Your task to perform on an android device: change notifications settings Image 0: 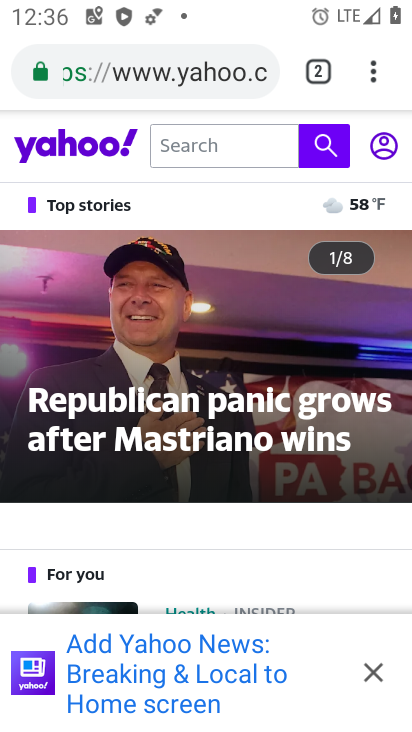
Step 0: press home button
Your task to perform on an android device: change notifications settings Image 1: 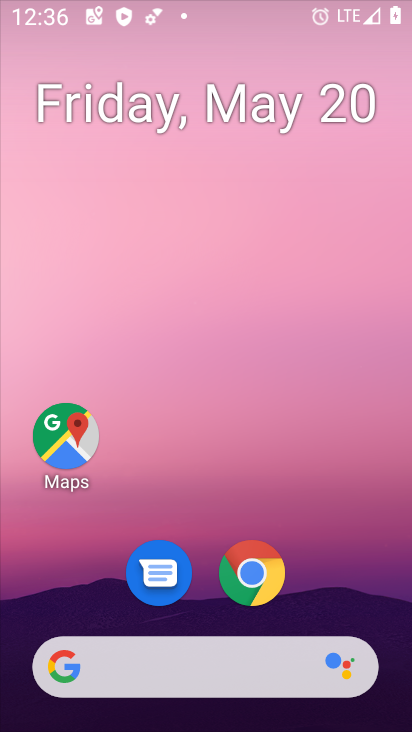
Step 1: drag from (309, 573) to (324, 99)
Your task to perform on an android device: change notifications settings Image 2: 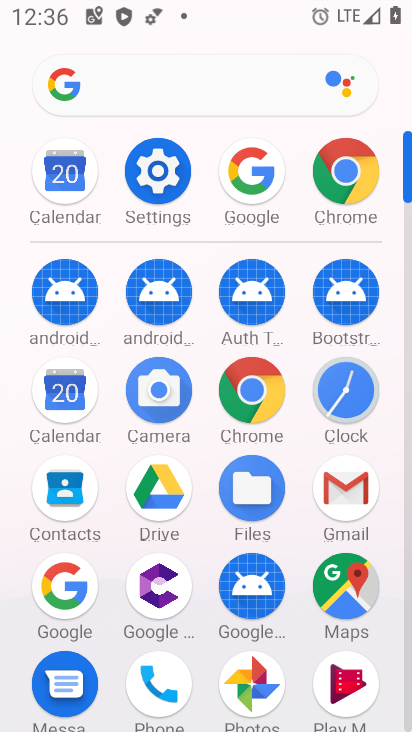
Step 2: click (157, 165)
Your task to perform on an android device: change notifications settings Image 3: 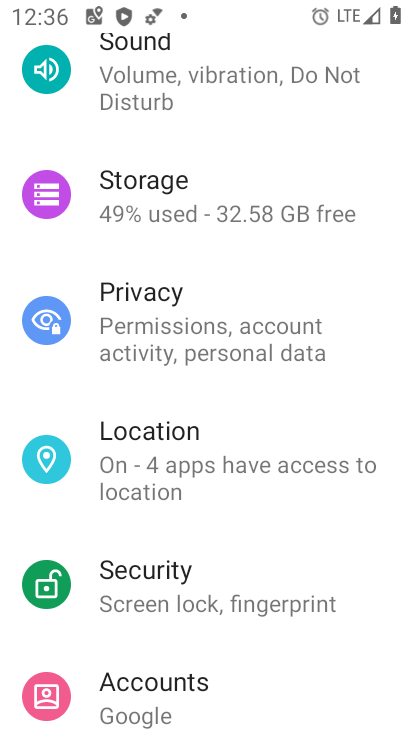
Step 3: drag from (242, 150) to (334, 632)
Your task to perform on an android device: change notifications settings Image 4: 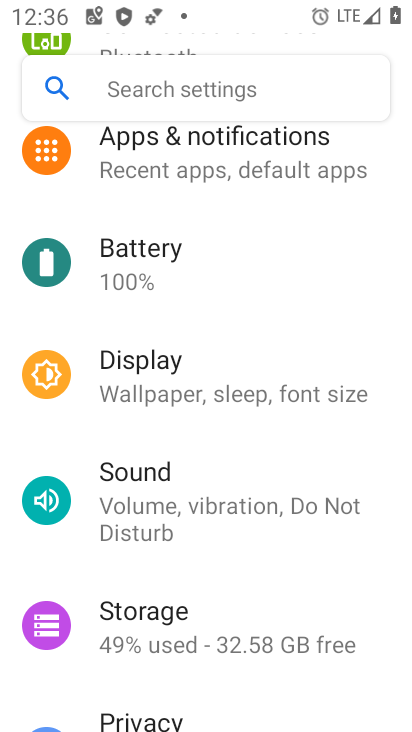
Step 4: drag from (223, 206) to (238, 399)
Your task to perform on an android device: change notifications settings Image 5: 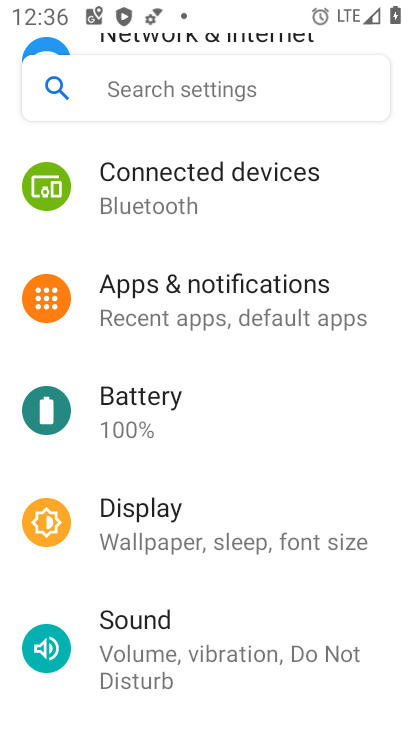
Step 5: click (130, 295)
Your task to perform on an android device: change notifications settings Image 6: 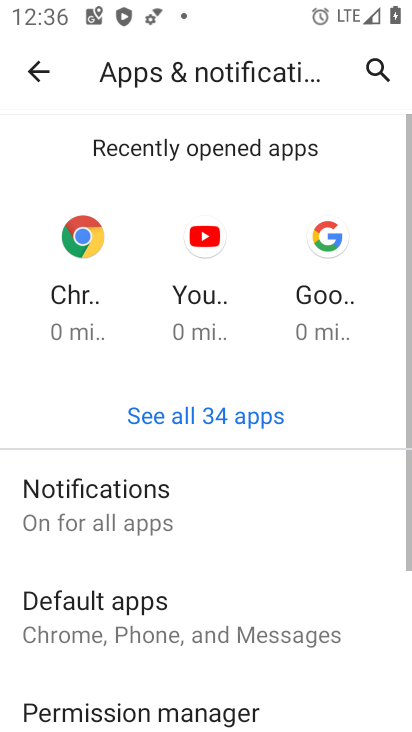
Step 6: click (129, 500)
Your task to perform on an android device: change notifications settings Image 7: 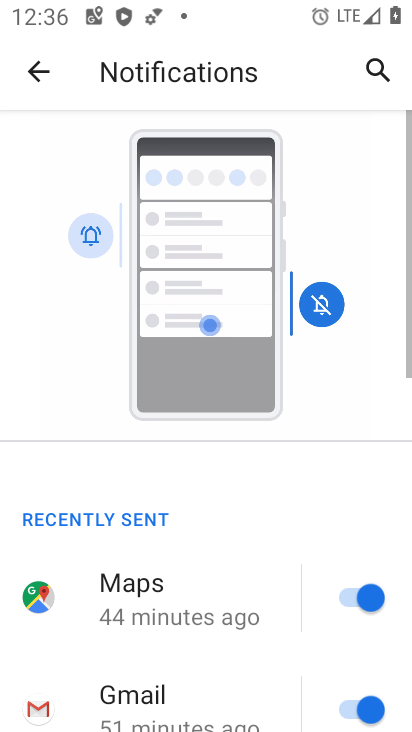
Step 7: drag from (240, 621) to (253, 30)
Your task to perform on an android device: change notifications settings Image 8: 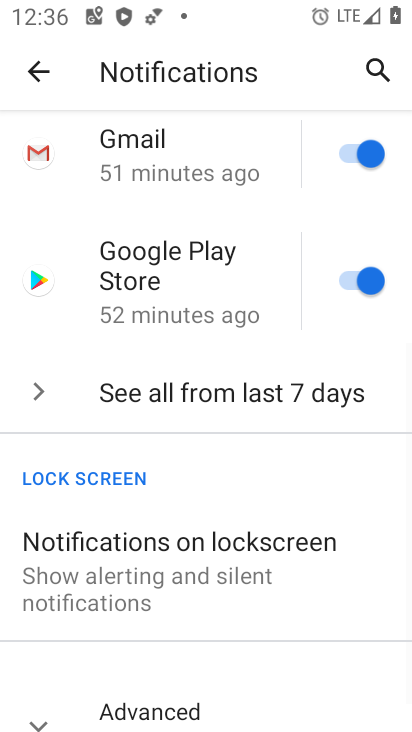
Step 8: drag from (293, 621) to (301, 86)
Your task to perform on an android device: change notifications settings Image 9: 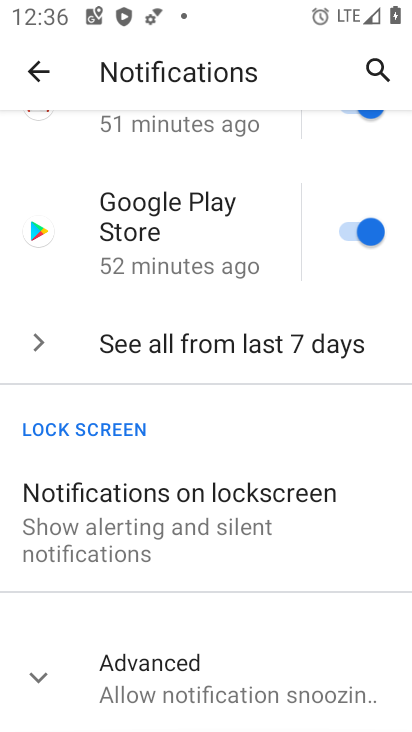
Step 9: click (142, 680)
Your task to perform on an android device: change notifications settings Image 10: 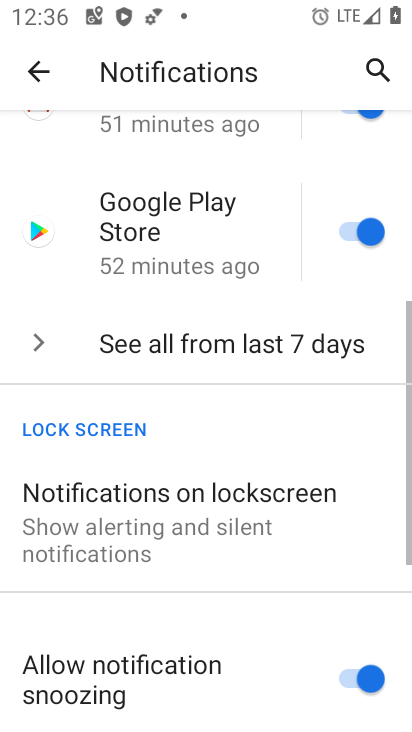
Step 10: drag from (322, 617) to (315, 88)
Your task to perform on an android device: change notifications settings Image 11: 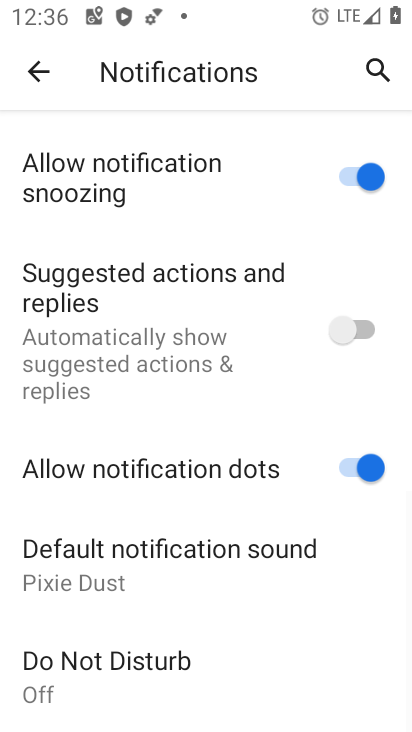
Step 11: click (374, 175)
Your task to perform on an android device: change notifications settings Image 12: 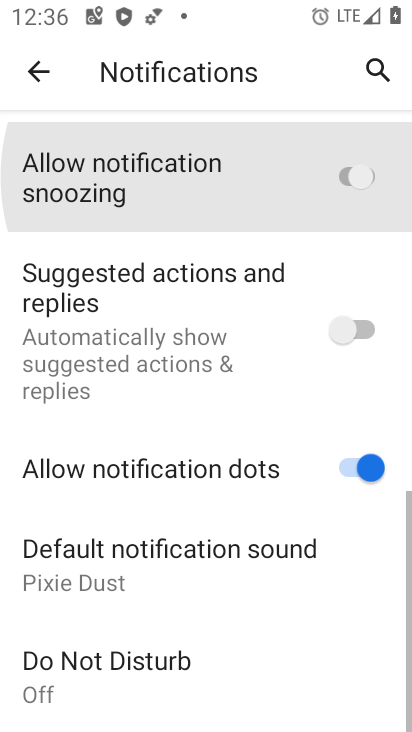
Step 12: click (363, 318)
Your task to perform on an android device: change notifications settings Image 13: 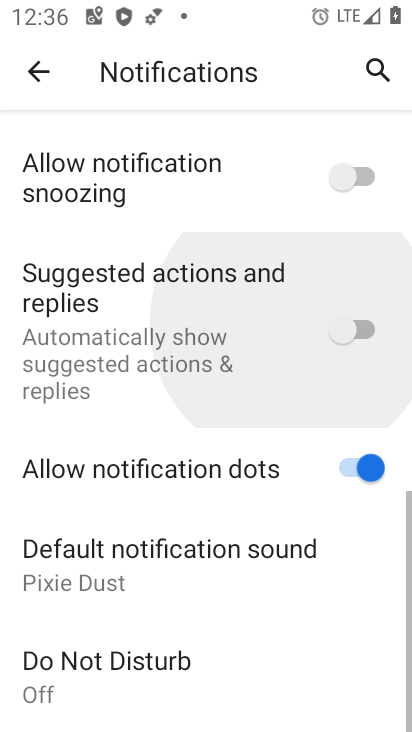
Step 13: click (377, 471)
Your task to perform on an android device: change notifications settings Image 14: 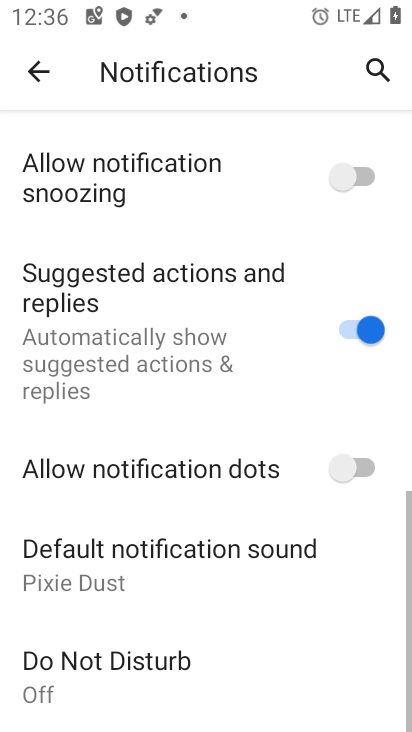
Step 14: task complete